Your task to perform on an android device: turn on showing notifications on the lock screen Image 0: 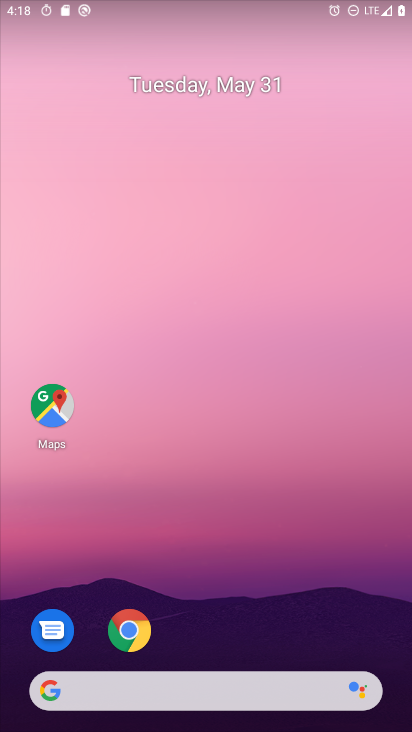
Step 0: drag from (260, 676) to (268, 45)
Your task to perform on an android device: turn on showing notifications on the lock screen Image 1: 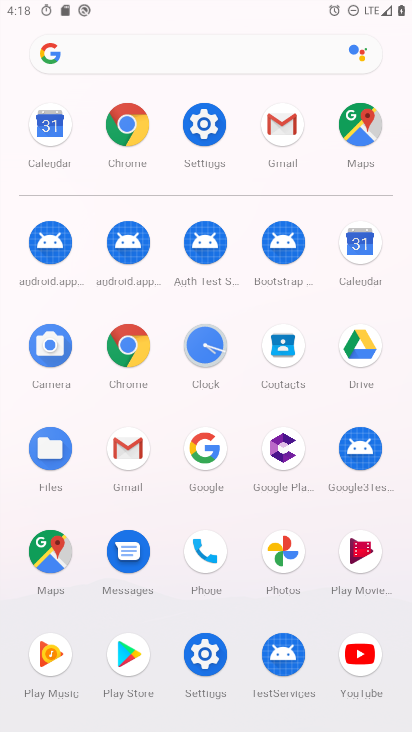
Step 1: click (210, 127)
Your task to perform on an android device: turn on showing notifications on the lock screen Image 2: 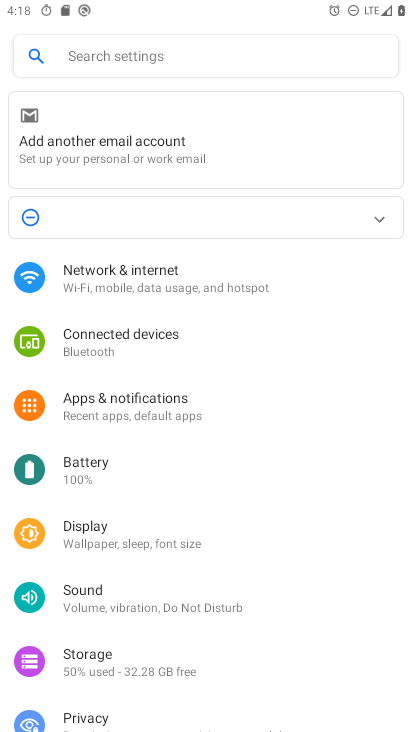
Step 2: drag from (199, 694) to (197, 558)
Your task to perform on an android device: turn on showing notifications on the lock screen Image 3: 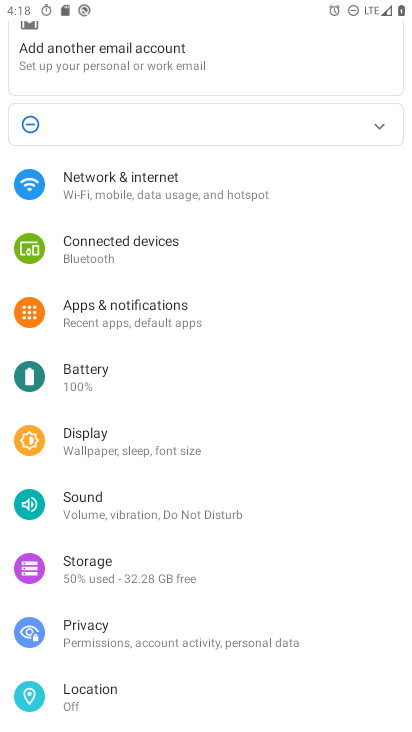
Step 3: click (193, 317)
Your task to perform on an android device: turn on showing notifications on the lock screen Image 4: 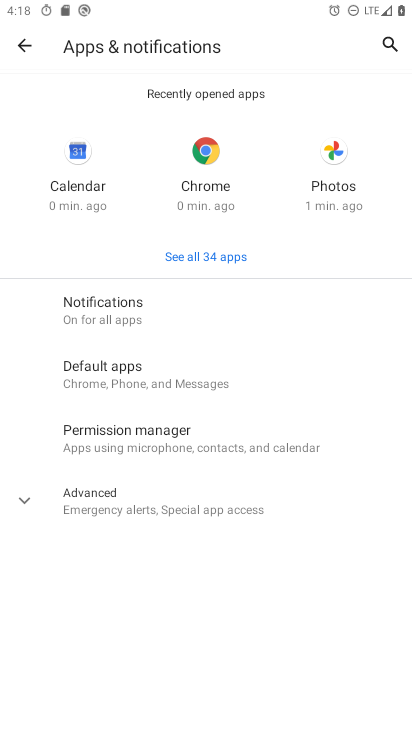
Step 4: click (150, 306)
Your task to perform on an android device: turn on showing notifications on the lock screen Image 5: 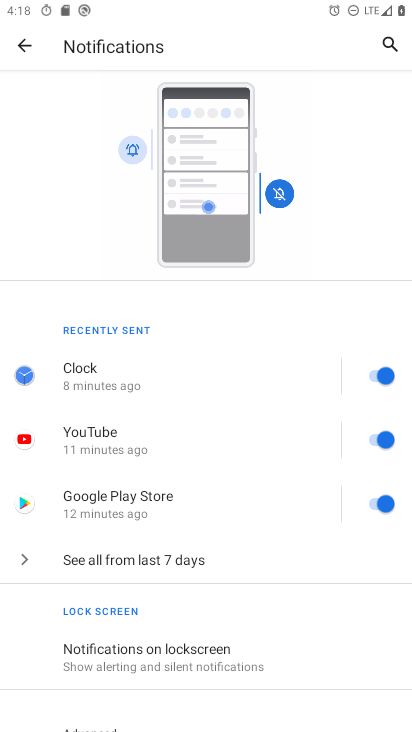
Step 5: drag from (190, 683) to (222, 484)
Your task to perform on an android device: turn on showing notifications on the lock screen Image 6: 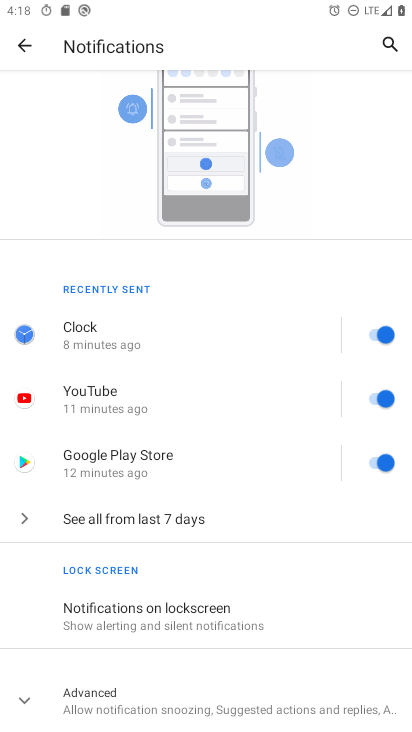
Step 6: click (197, 606)
Your task to perform on an android device: turn on showing notifications on the lock screen Image 7: 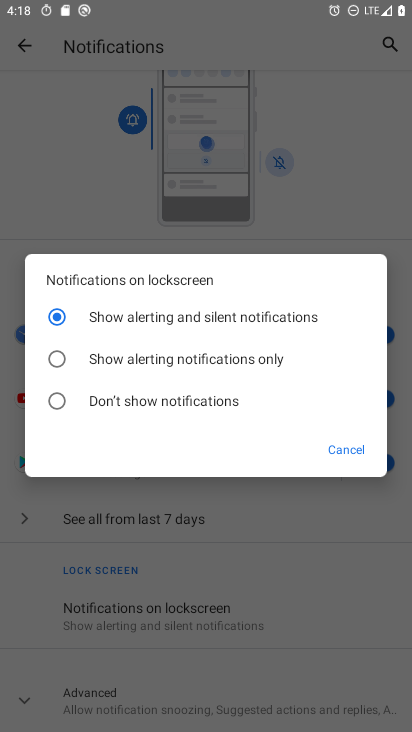
Step 7: task complete